Your task to perform on an android device: check battery use Image 0: 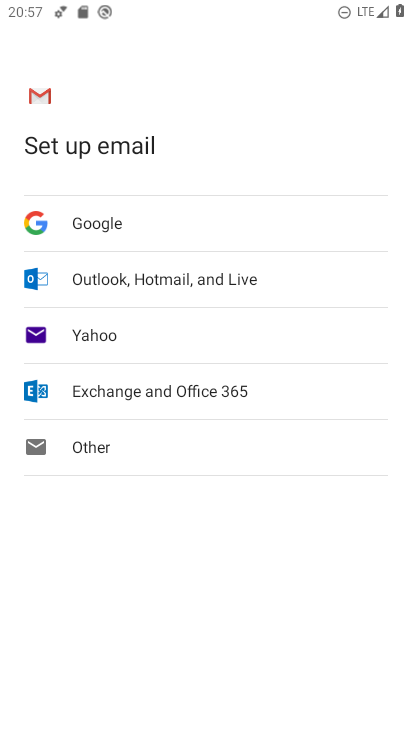
Step 0: press home button
Your task to perform on an android device: check battery use Image 1: 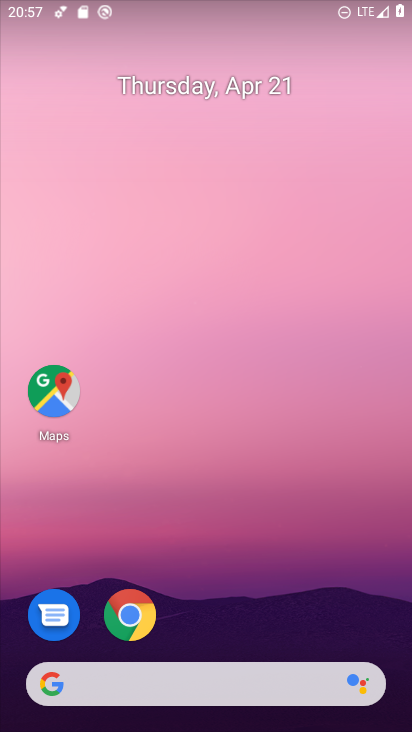
Step 1: drag from (215, 555) to (260, 186)
Your task to perform on an android device: check battery use Image 2: 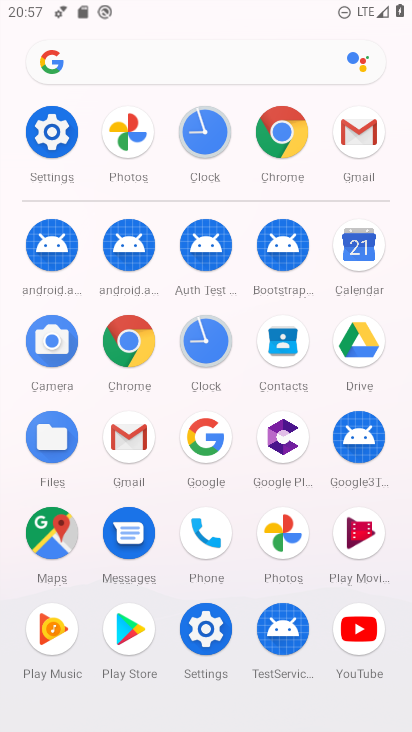
Step 2: click (205, 632)
Your task to perform on an android device: check battery use Image 3: 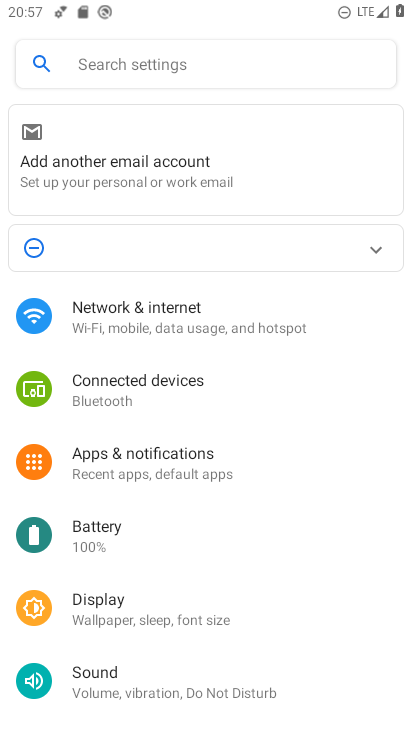
Step 3: click (118, 551)
Your task to perform on an android device: check battery use Image 4: 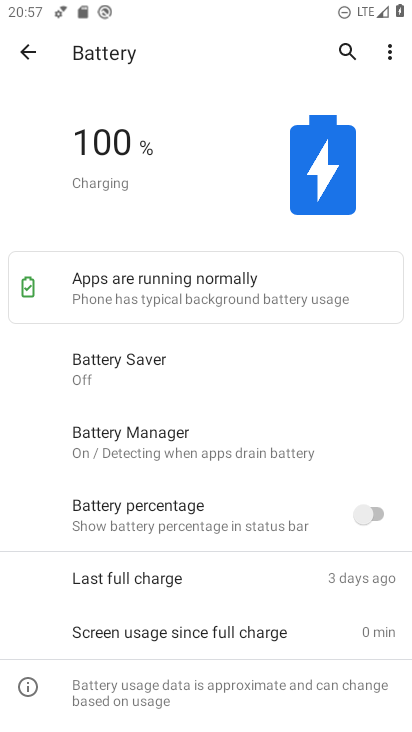
Step 4: task complete